Your task to perform on an android device: turn on the 12-hour format for clock Image 0: 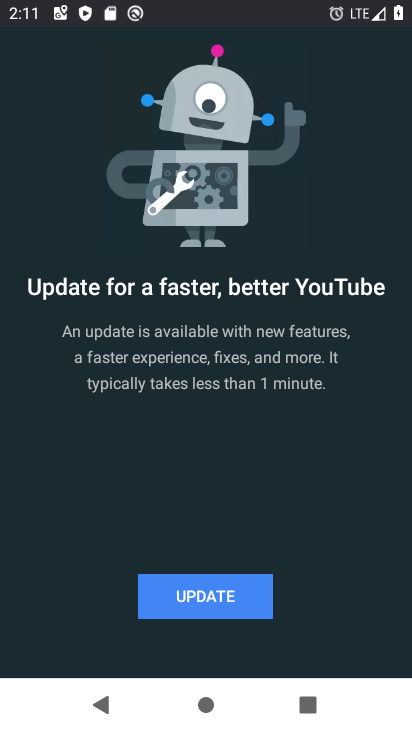
Step 0: press home button
Your task to perform on an android device: turn on the 12-hour format for clock Image 1: 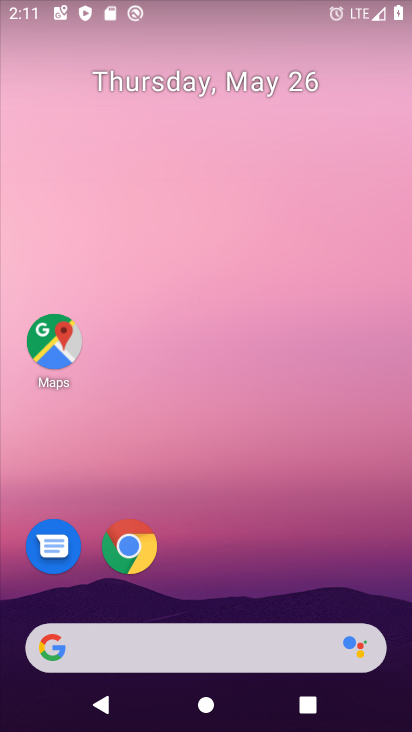
Step 1: drag from (232, 565) to (304, 57)
Your task to perform on an android device: turn on the 12-hour format for clock Image 2: 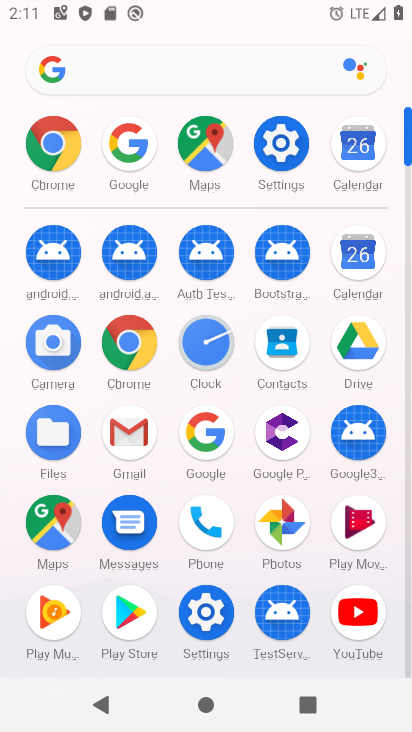
Step 2: click (205, 345)
Your task to perform on an android device: turn on the 12-hour format for clock Image 3: 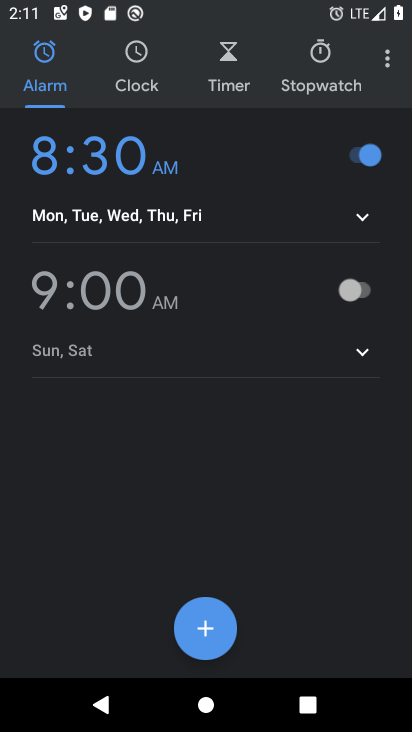
Step 3: click (383, 53)
Your task to perform on an android device: turn on the 12-hour format for clock Image 4: 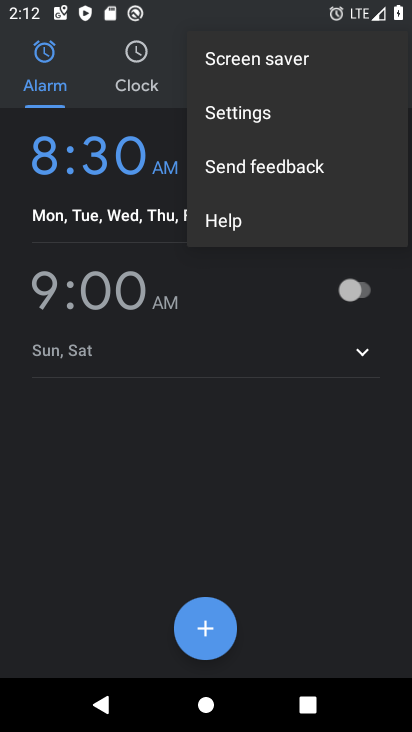
Step 4: click (254, 138)
Your task to perform on an android device: turn on the 12-hour format for clock Image 5: 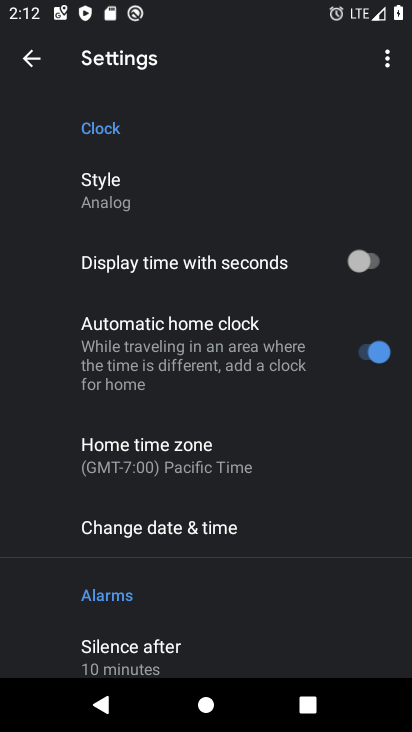
Step 5: click (200, 520)
Your task to perform on an android device: turn on the 12-hour format for clock Image 6: 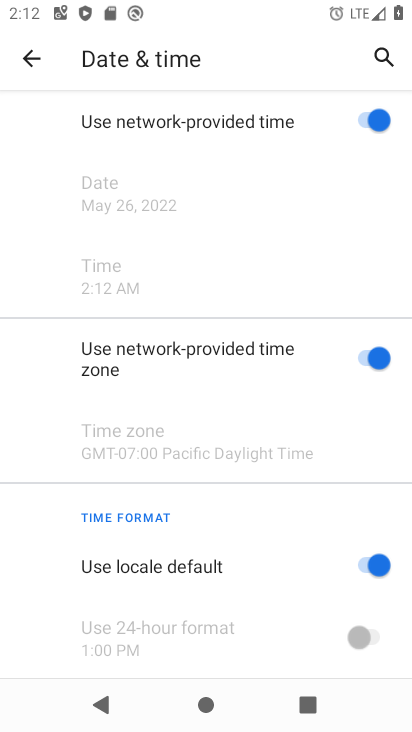
Step 6: task complete